Your task to perform on an android device: Open accessibility settings Image 0: 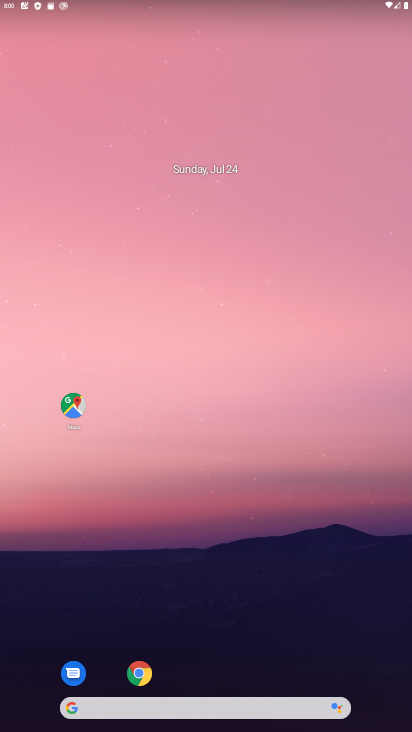
Step 0: drag from (179, 668) to (216, 221)
Your task to perform on an android device: Open accessibility settings Image 1: 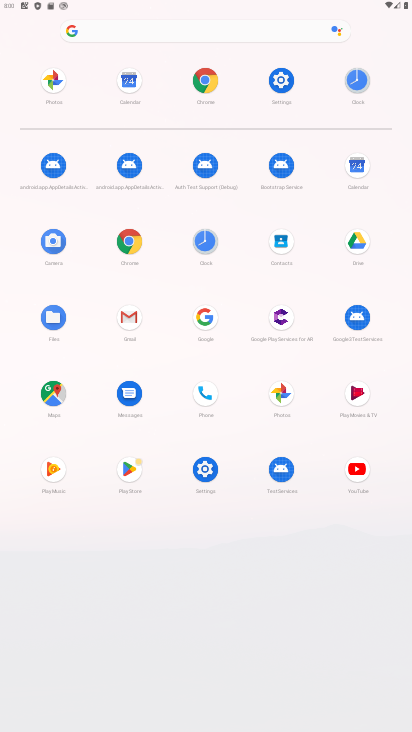
Step 1: click (197, 471)
Your task to perform on an android device: Open accessibility settings Image 2: 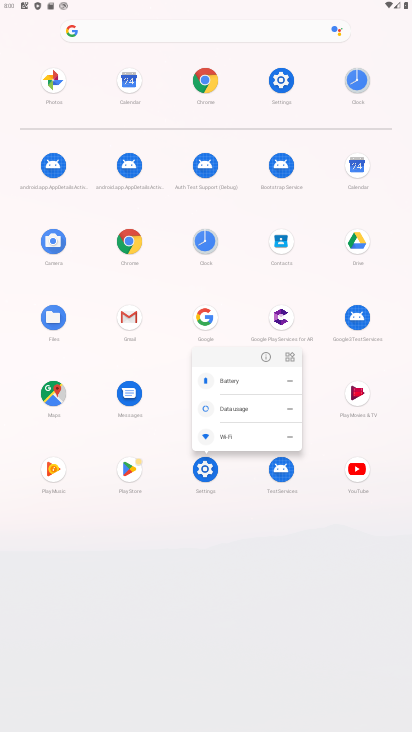
Step 2: click (261, 354)
Your task to perform on an android device: Open accessibility settings Image 3: 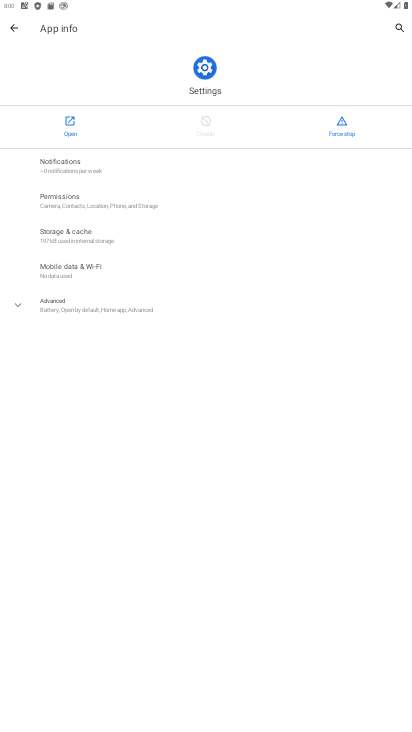
Step 3: click (64, 124)
Your task to perform on an android device: Open accessibility settings Image 4: 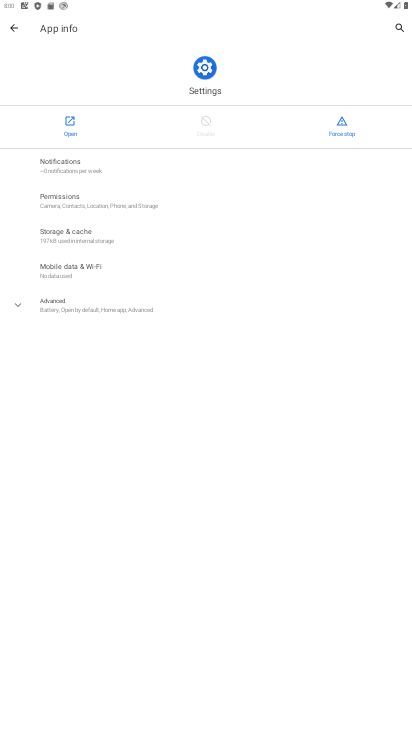
Step 4: click (64, 124)
Your task to perform on an android device: Open accessibility settings Image 5: 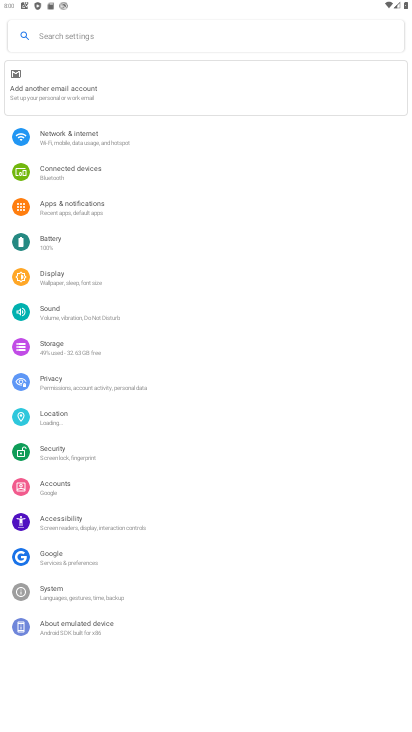
Step 5: click (93, 31)
Your task to perform on an android device: Open accessibility settings Image 6: 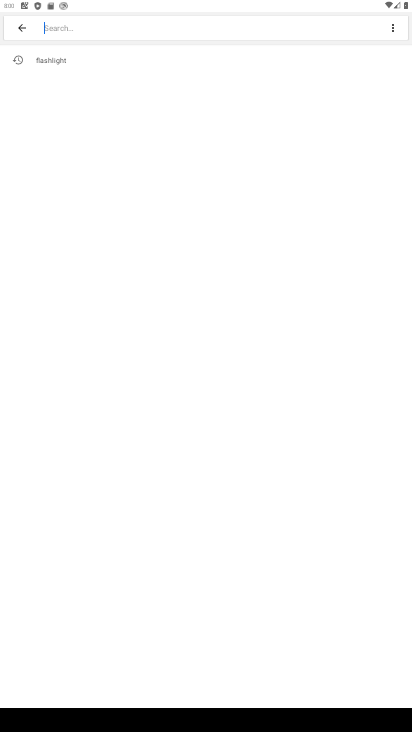
Step 6: type "accessibility"
Your task to perform on an android device: Open accessibility settings Image 7: 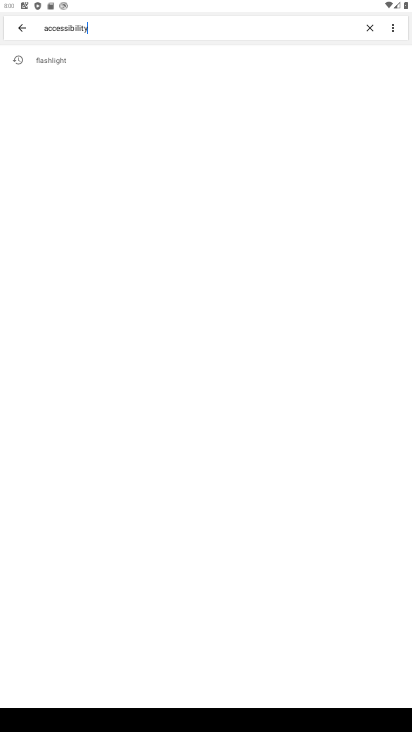
Step 7: type ""
Your task to perform on an android device: Open accessibility settings Image 8: 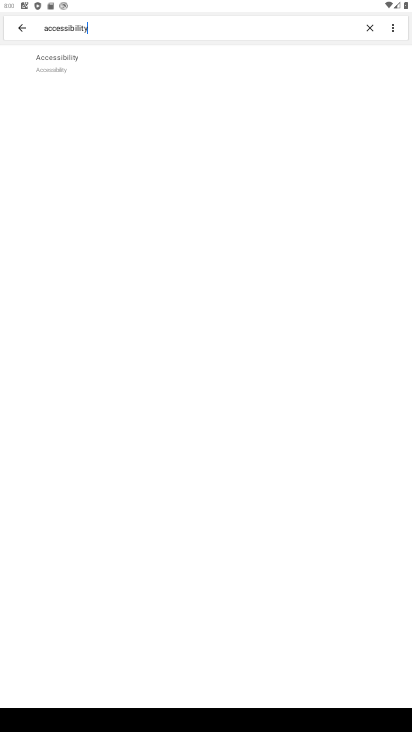
Step 8: click (81, 55)
Your task to perform on an android device: Open accessibility settings Image 9: 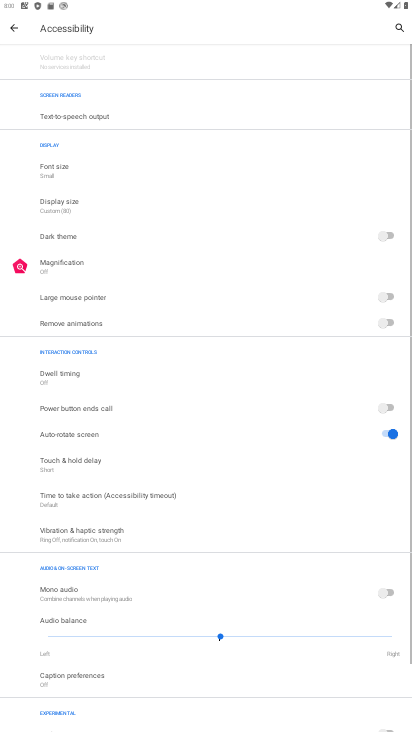
Step 9: task complete